Your task to perform on an android device: Search for sushi restaurants on Maps Image 0: 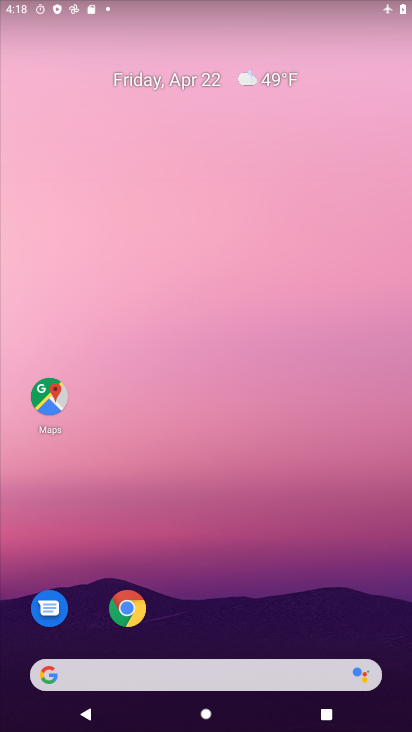
Step 0: click (49, 394)
Your task to perform on an android device: Search for sushi restaurants on Maps Image 1: 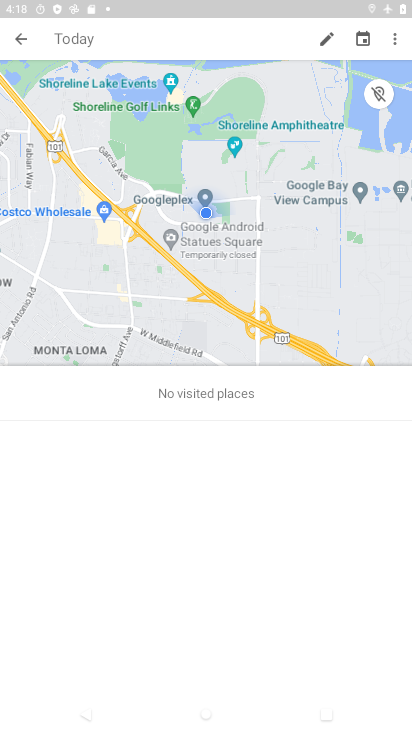
Step 1: press back button
Your task to perform on an android device: Search for sushi restaurants on Maps Image 2: 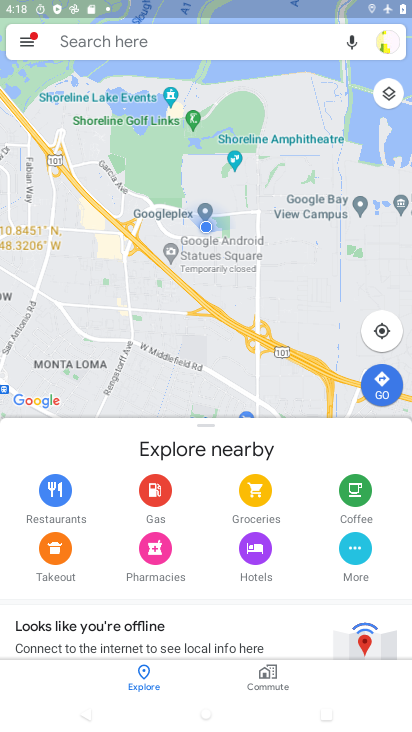
Step 2: click (223, 45)
Your task to perform on an android device: Search for sushi restaurants on Maps Image 3: 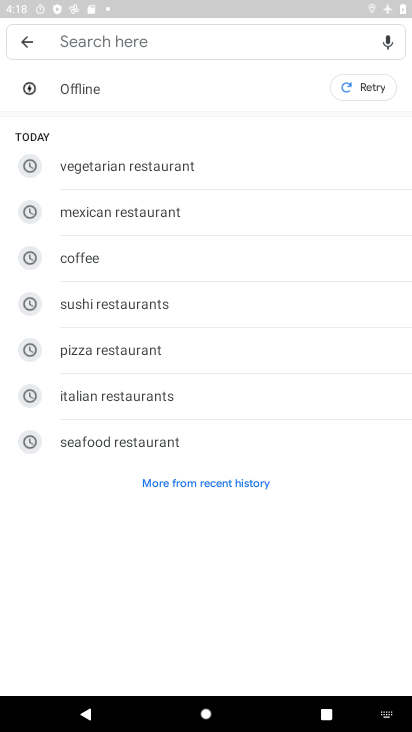
Step 3: click (130, 305)
Your task to perform on an android device: Search for sushi restaurants on Maps Image 4: 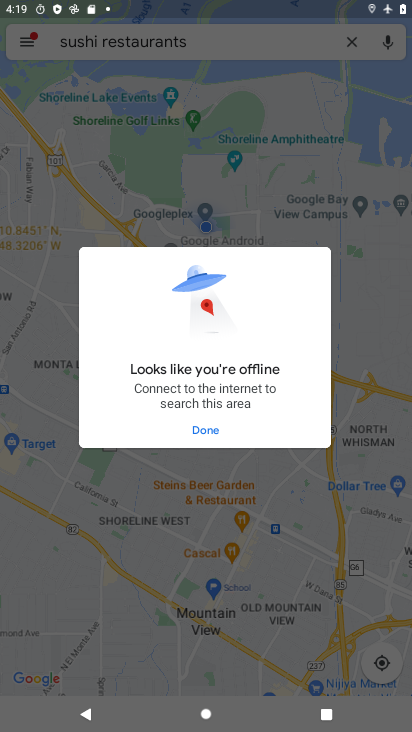
Step 4: task complete